Your task to perform on an android device: find which apps use the phone's location Image 0: 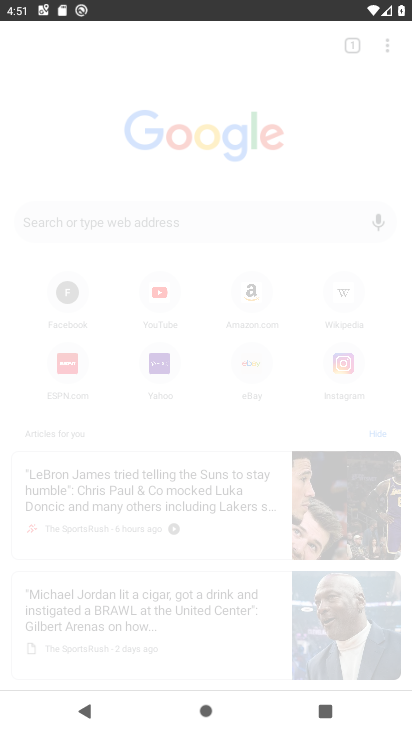
Step 0: drag from (237, 584) to (168, 86)
Your task to perform on an android device: find which apps use the phone's location Image 1: 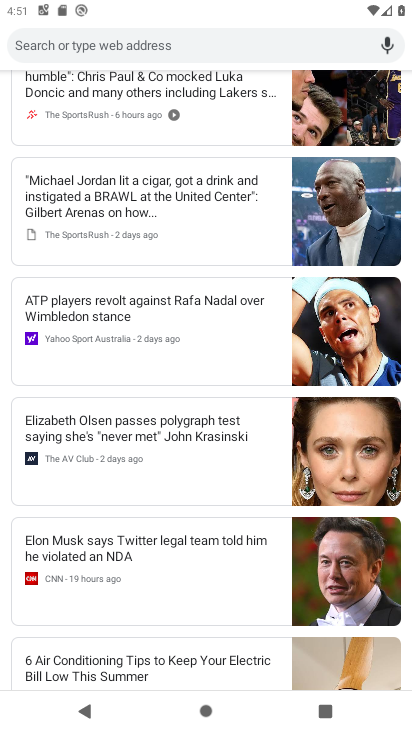
Step 1: press home button
Your task to perform on an android device: find which apps use the phone's location Image 2: 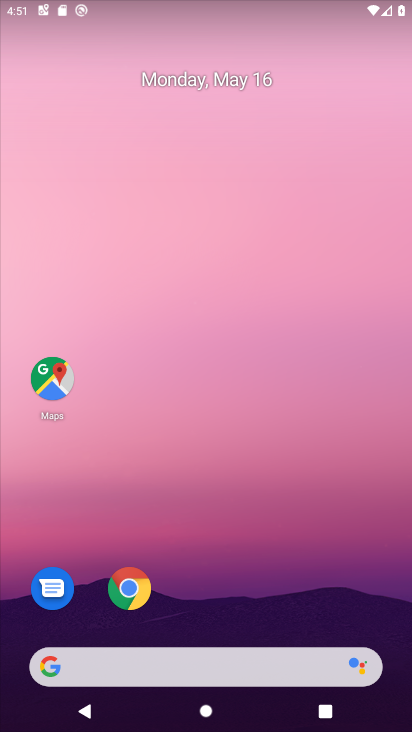
Step 2: drag from (233, 501) to (161, 73)
Your task to perform on an android device: find which apps use the phone's location Image 3: 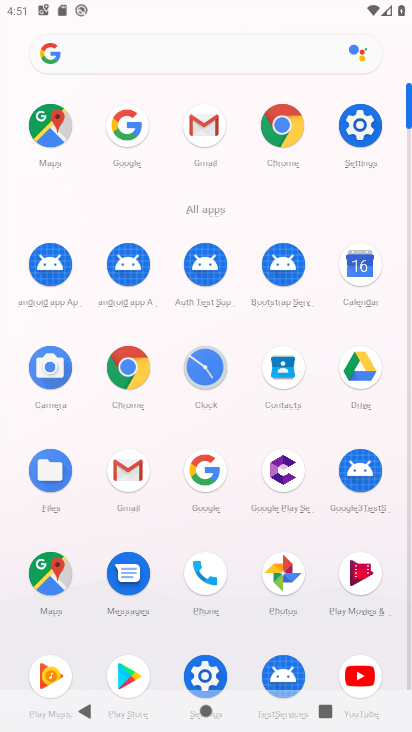
Step 3: click (357, 164)
Your task to perform on an android device: find which apps use the phone's location Image 4: 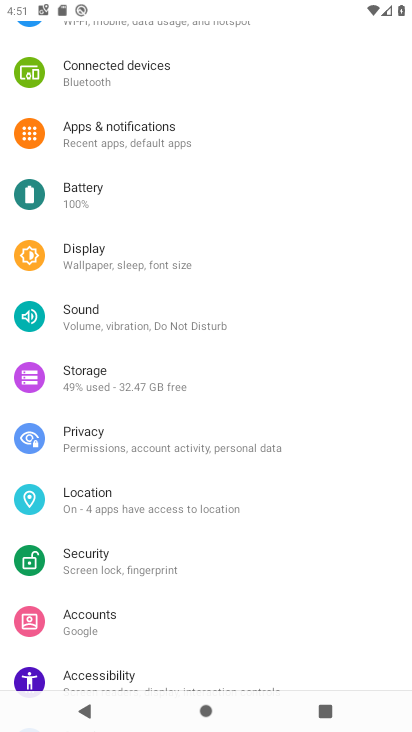
Step 4: click (145, 477)
Your task to perform on an android device: find which apps use the phone's location Image 5: 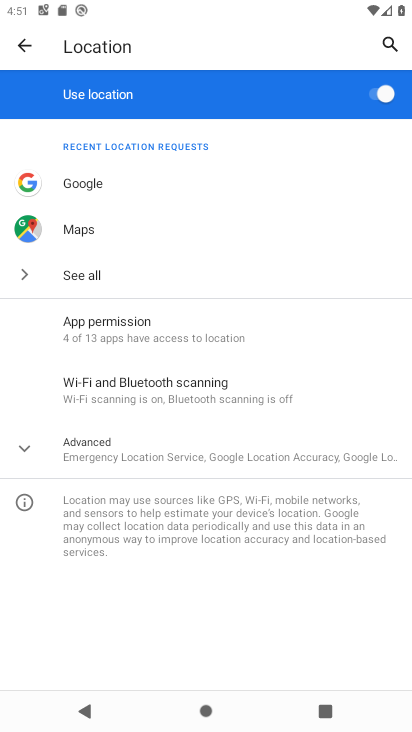
Step 5: click (122, 328)
Your task to perform on an android device: find which apps use the phone's location Image 6: 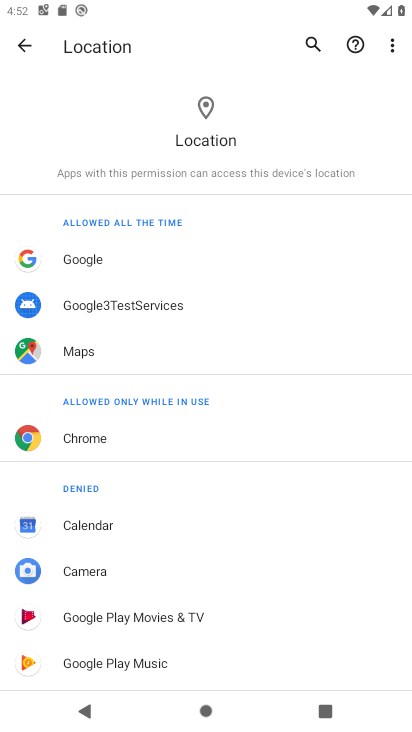
Step 6: task complete